Your task to perform on an android device: open chrome and create a bookmark for the current page Image 0: 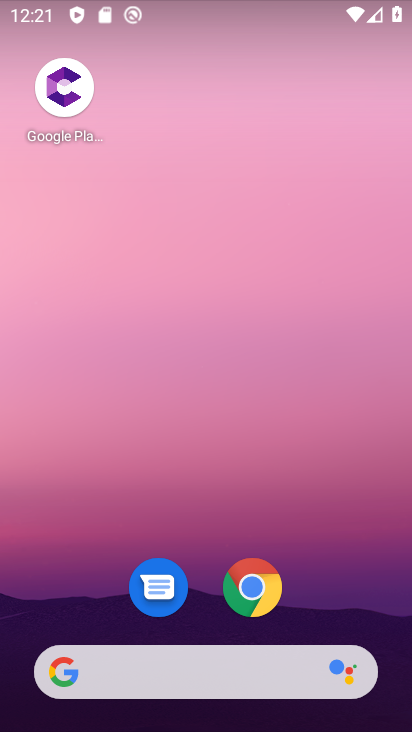
Step 0: click (251, 592)
Your task to perform on an android device: open chrome and create a bookmark for the current page Image 1: 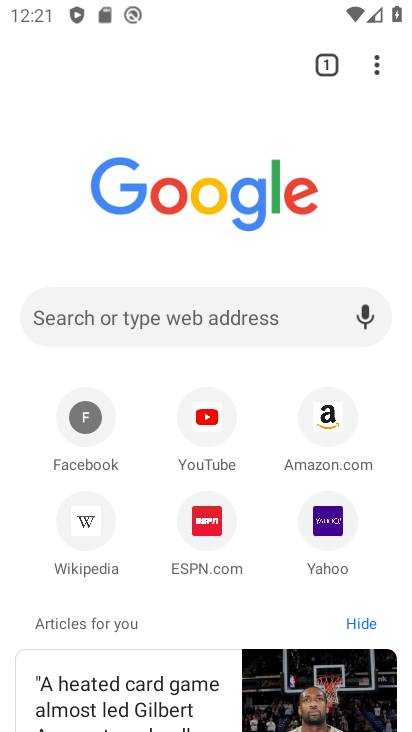
Step 1: click (379, 70)
Your task to perform on an android device: open chrome and create a bookmark for the current page Image 2: 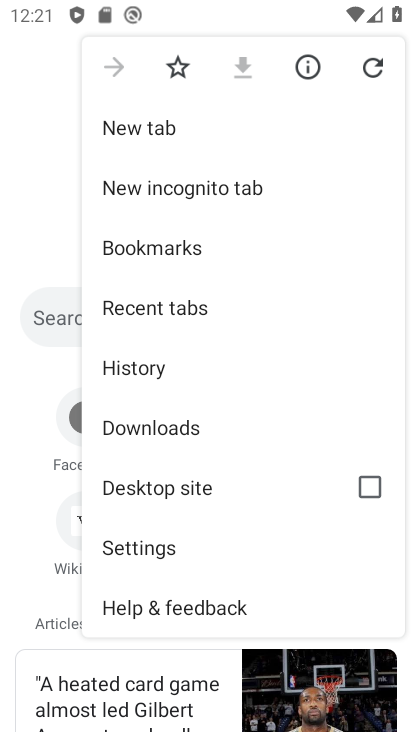
Step 2: click (176, 62)
Your task to perform on an android device: open chrome and create a bookmark for the current page Image 3: 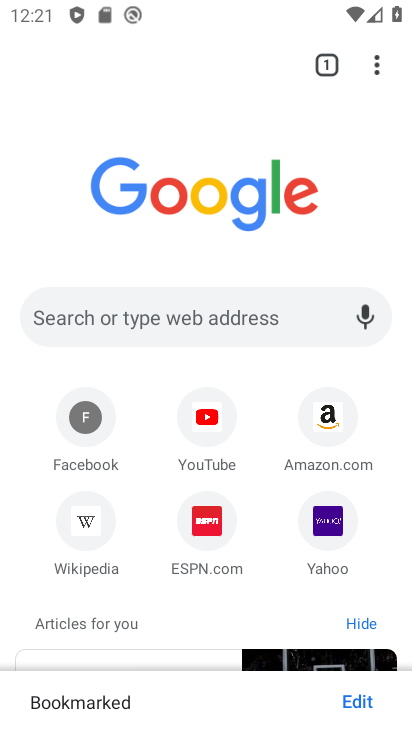
Step 3: task complete